Your task to perform on an android device: Open Yahoo.com Image 0: 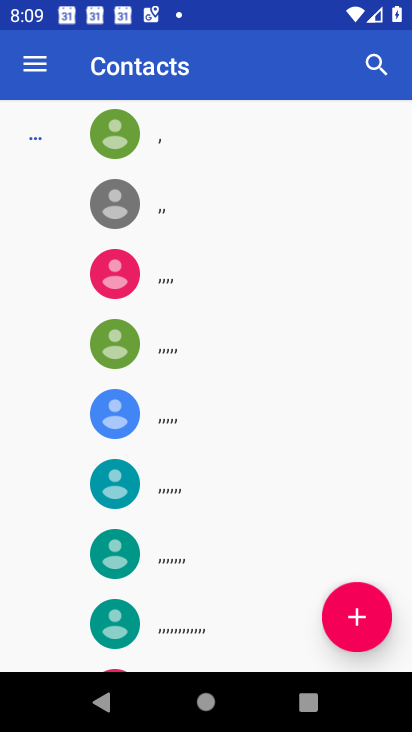
Step 0: press back button
Your task to perform on an android device: Open Yahoo.com Image 1: 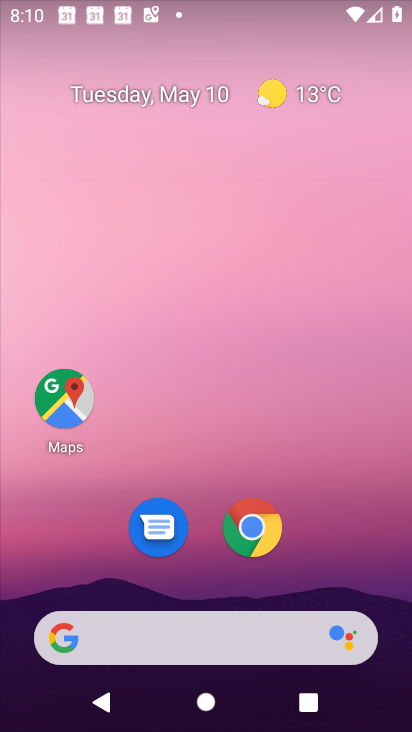
Step 1: click (254, 531)
Your task to perform on an android device: Open Yahoo.com Image 2: 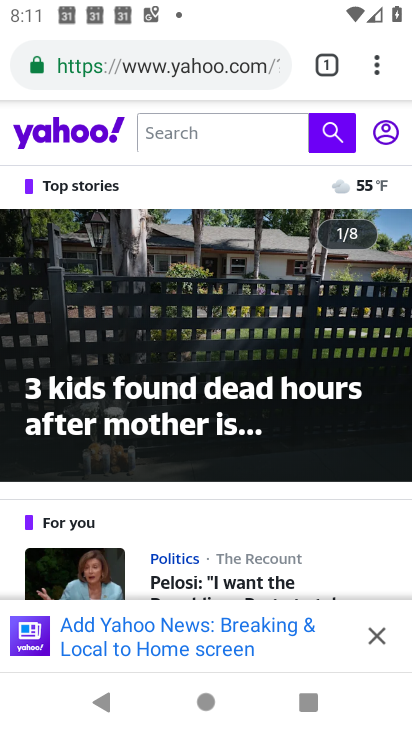
Step 2: task complete